Your task to perform on an android device: What's the weather going to be this weekend? Image 0: 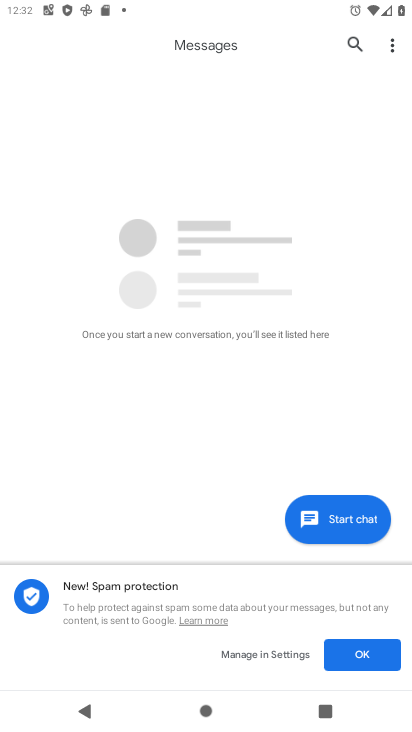
Step 0: press home button
Your task to perform on an android device: What's the weather going to be this weekend? Image 1: 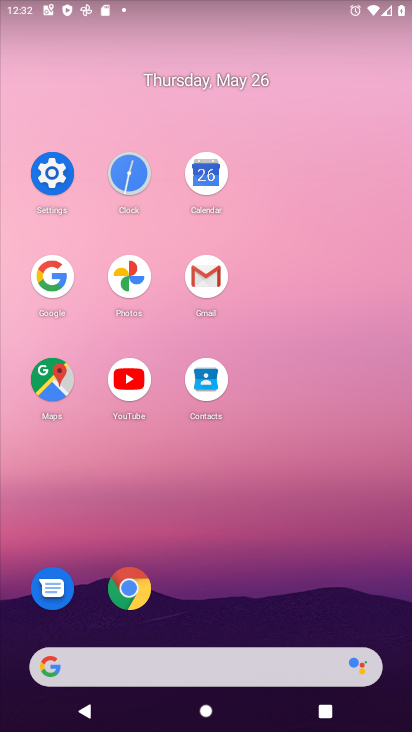
Step 1: click (44, 281)
Your task to perform on an android device: What's the weather going to be this weekend? Image 2: 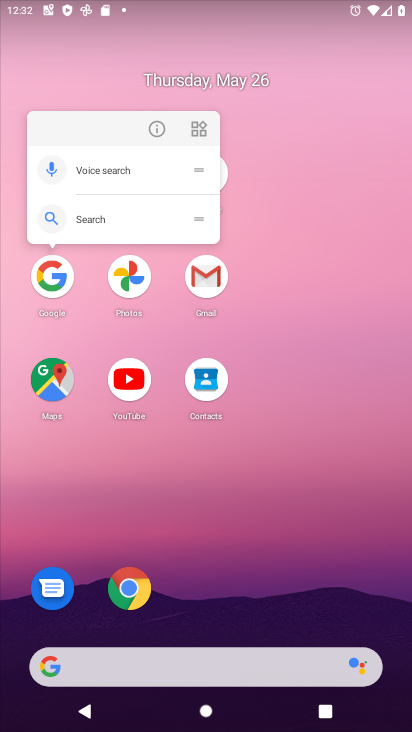
Step 2: click (65, 294)
Your task to perform on an android device: What's the weather going to be this weekend? Image 3: 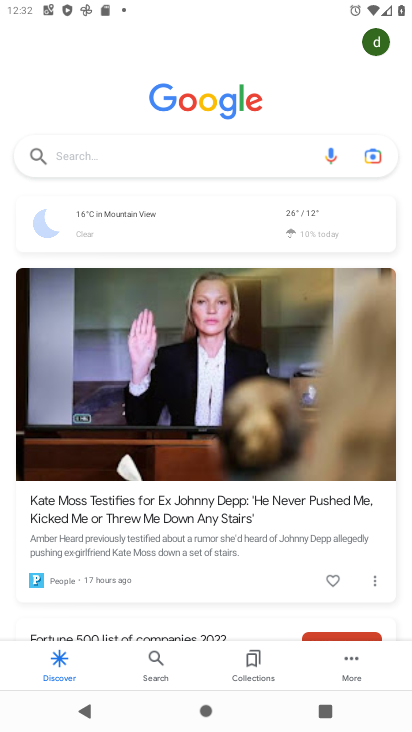
Step 3: click (244, 154)
Your task to perform on an android device: What's the weather going to be this weekend? Image 4: 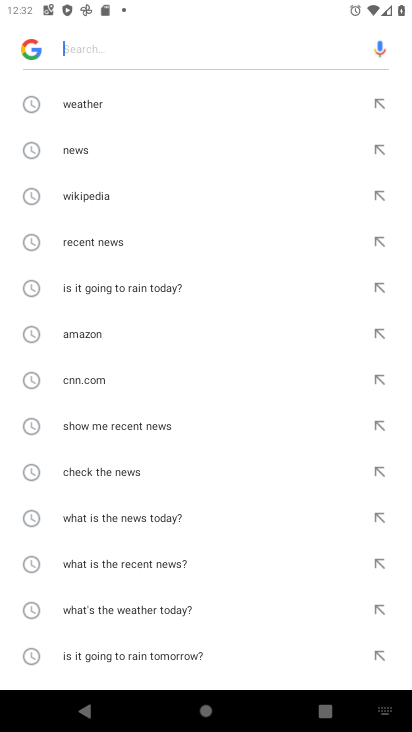
Step 4: click (133, 109)
Your task to perform on an android device: What's the weather going to be this weekend? Image 5: 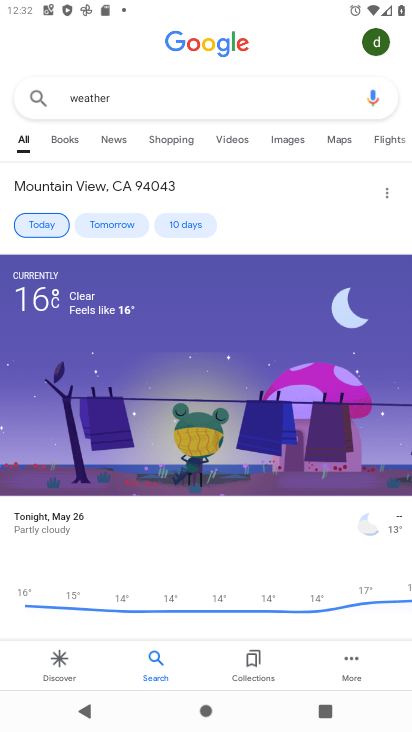
Step 5: click (183, 226)
Your task to perform on an android device: What's the weather going to be this weekend? Image 6: 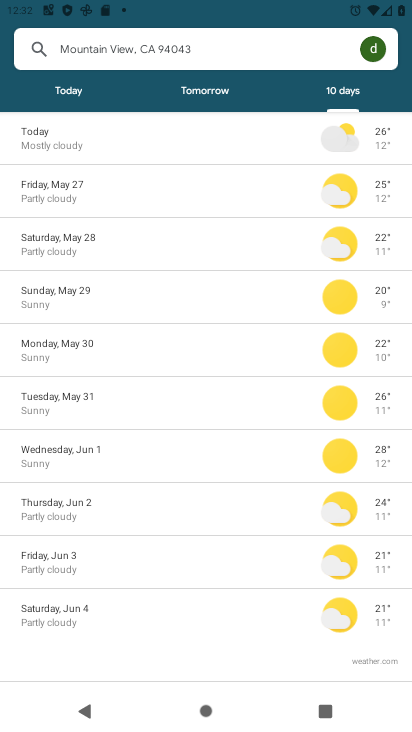
Step 6: click (116, 235)
Your task to perform on an android device: What's the weather going to be this weekend? Image 7: 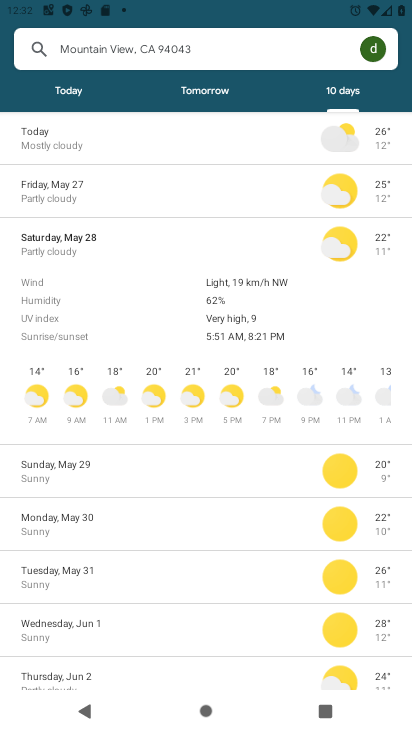
Step 7: task complete